Your task to perform on an android device: Open the Play Movies app and select the watchlist tab. Image 0: 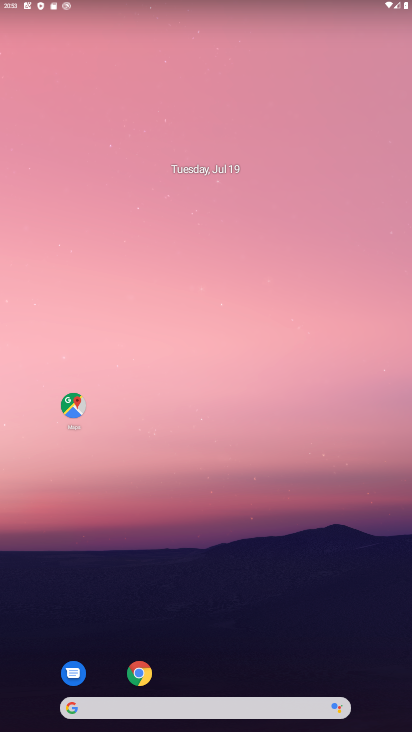
Step 0: drag from (244, 683) to (245, 150)
Your task to perform on an android device: Open the Play Movies app and select the watchlist tab. Image 1: 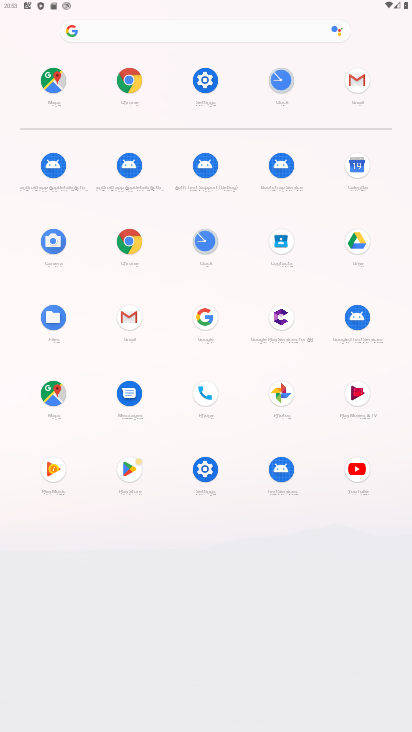
Step 1: click (353, 411)
Your task to perform on an android device: Open the Play Movies app and select the watchlist tab. Image 2: 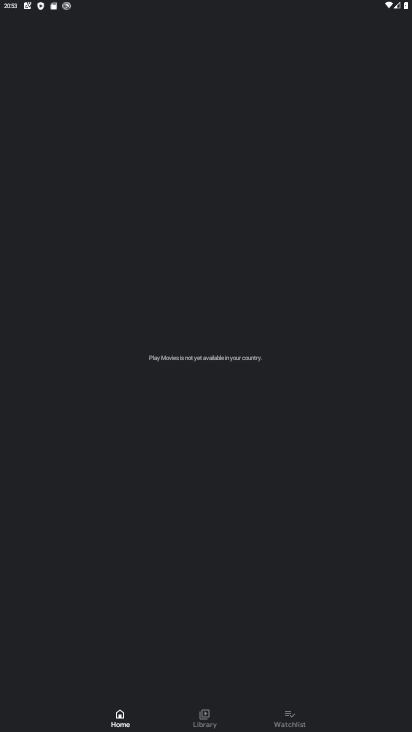
Step 2: click (289, 712)
Your task to perform on an android device: Open the Play Movies app and select the watchlist tab. Image 3: 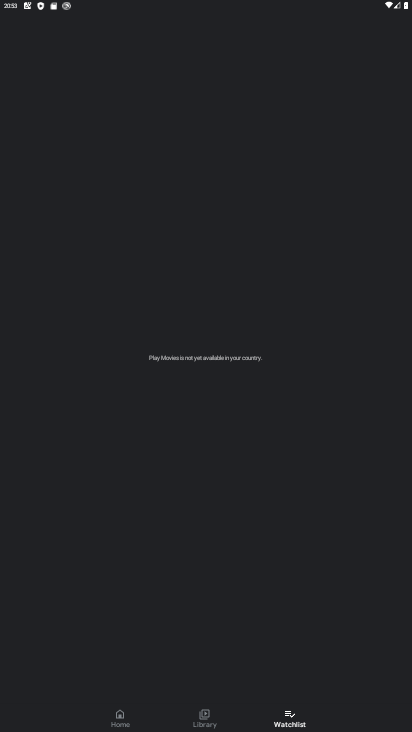
Step 3: task complete